Your task to perform on an android device: Open Google Image 0: 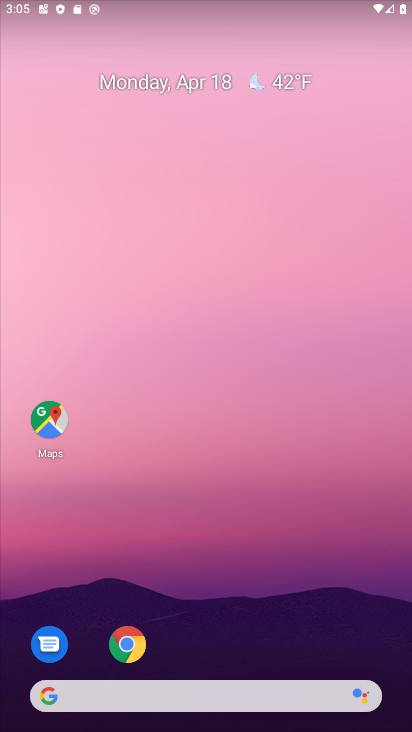
Step 0: drag from (276, 652) to (344, 132)
Your task to perform on an android device: Open Google Image 1: 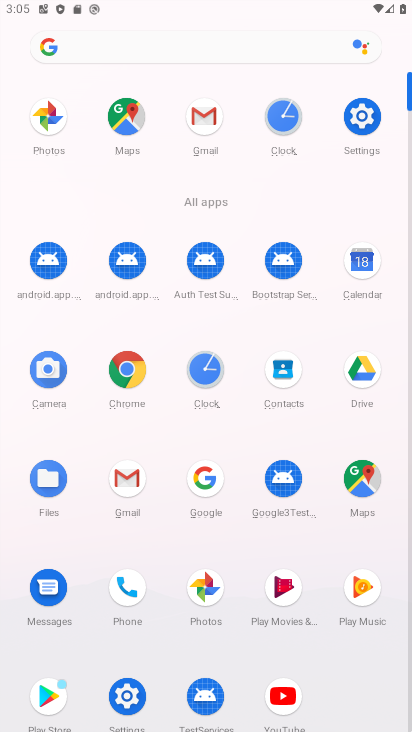
Step 1: click (202, 481)
Your task to perform on an android device: Open Google Image 2: 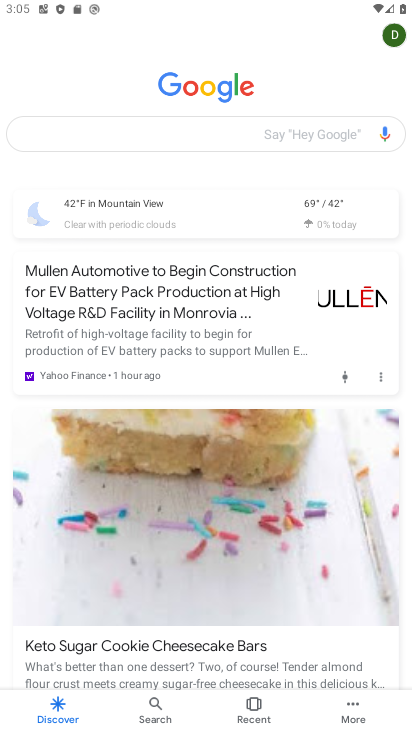
Step 2: task complete